Your task to perform on an android device: toggle improve location accuracy Image 0: 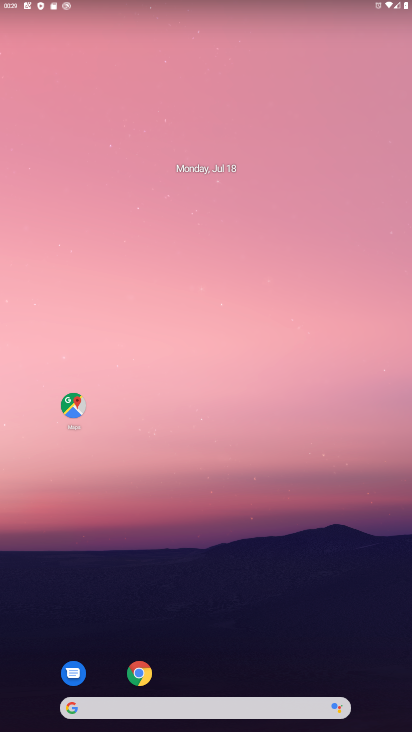
Step 0: drag from (256, 669) to (285, 22)
Your task to perform on an android device: toggle improve location accuracy Image 1: 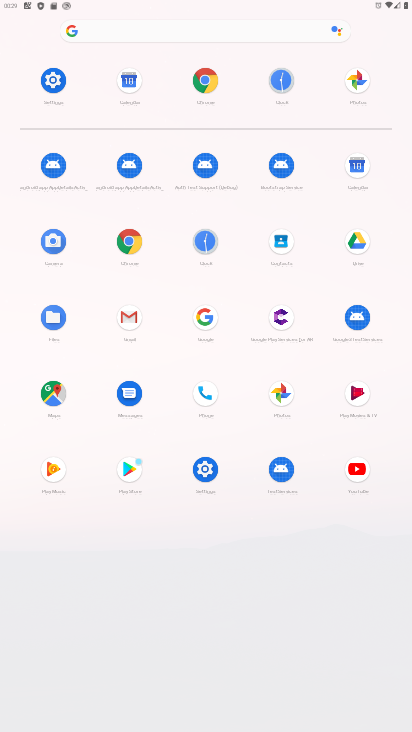
Step 1: click (45, 88)
Your task to perform on an android device: toggle improve location accuracy Image 2: 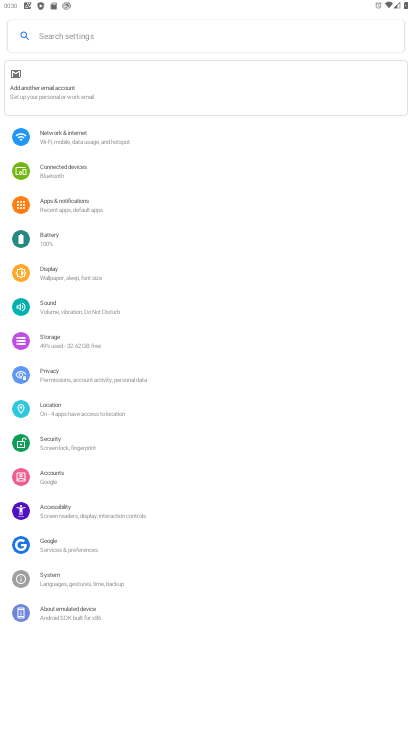
Step 2: click (124, 414)
Your task to perform on an android device: toggle improve location accuracy Image 3: 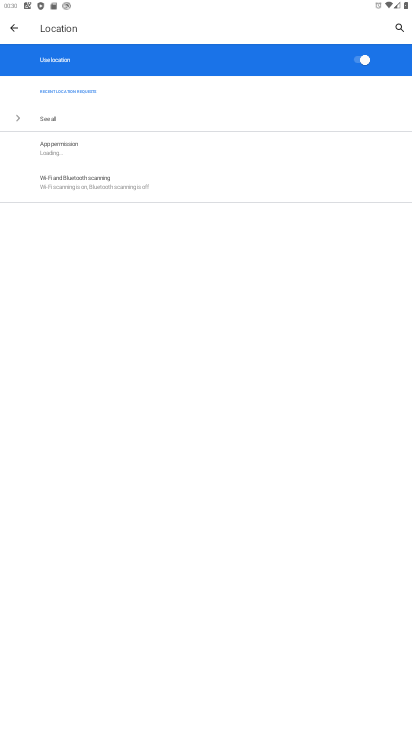
Step 3: task complete